Your task to perform on an android device: open app "Fetch Rewards" (install if not already installed) Image 0: 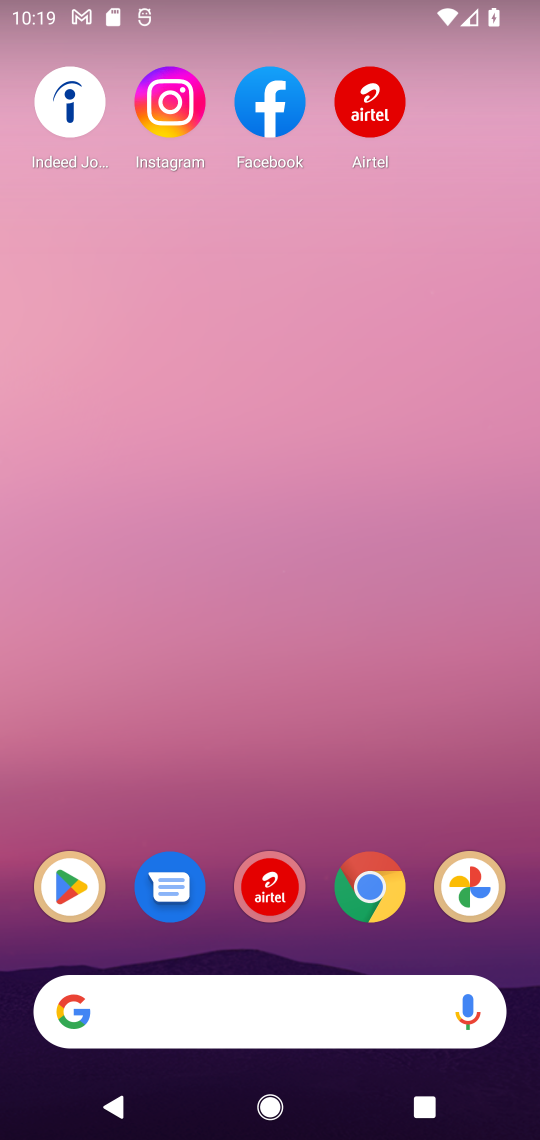
Step 0: drag from (363, 966) to (532, 446)
Your task to perform on an android device: open app "Fetch Rewards" (install if not already installed) Image 1: 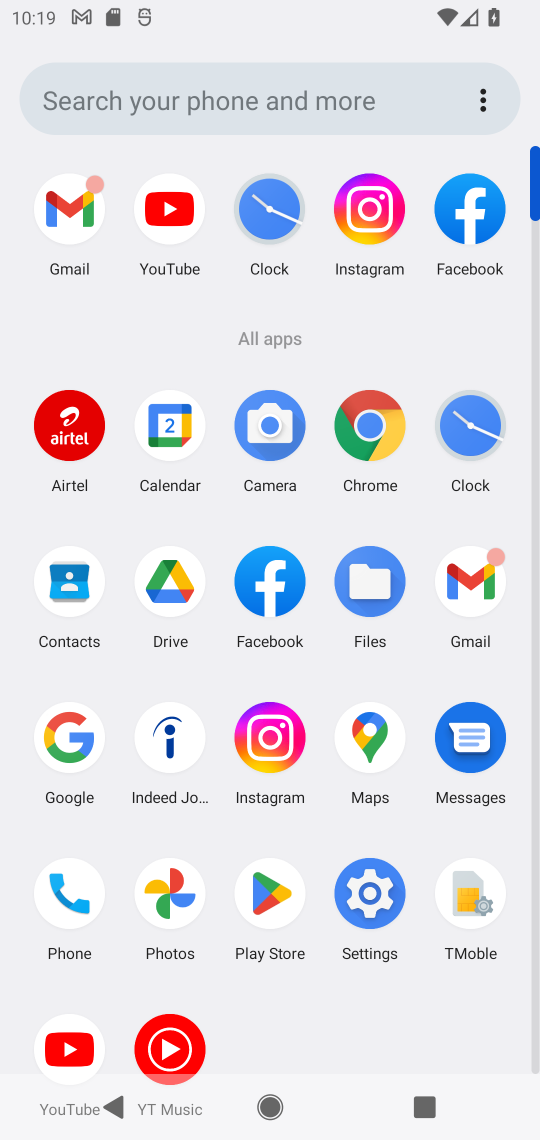
Step 1: click (243, 897)
Your task to perform on an android device: open app "Fetch Rewards" (install if not already installed) Image 2: 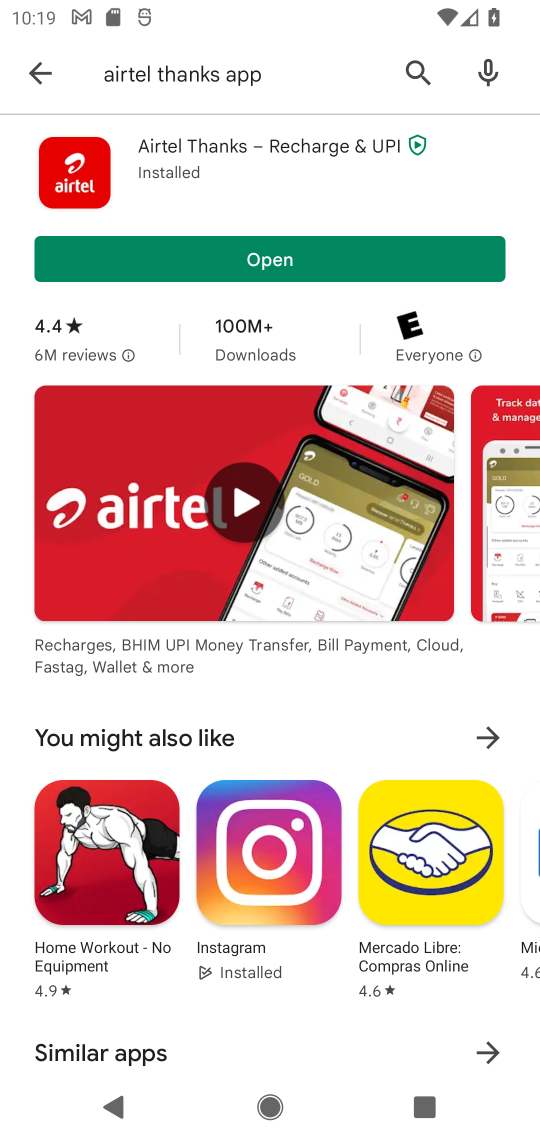
Step 2: click (19, 61)
Your task to perform on an android device: open app "Fetch Rewards" (install if not already installed) Image 3: 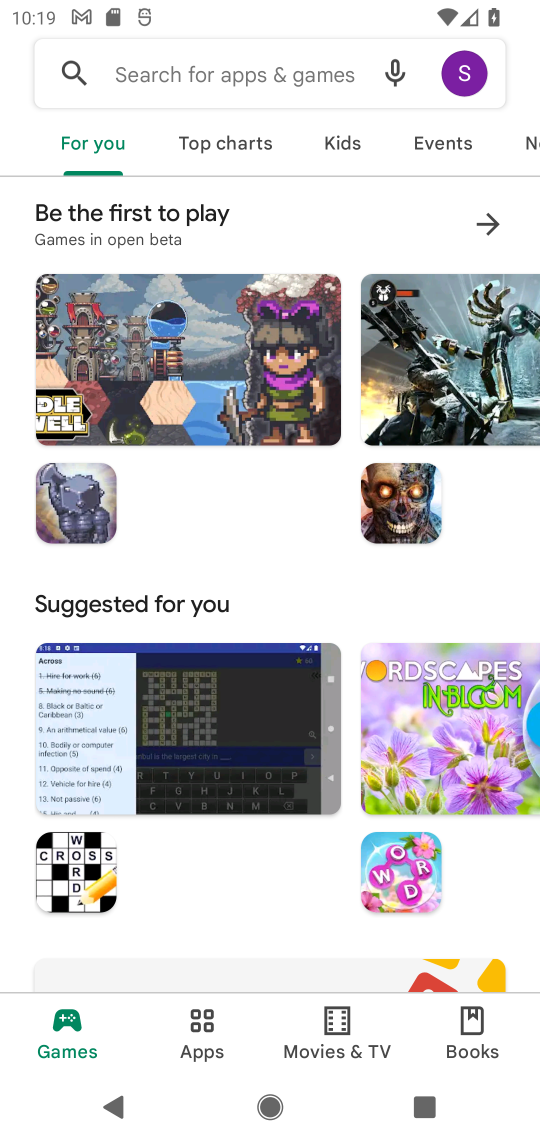
Step 3: click (99, 82)
Your task to perform on an android device: open app "Fetch Rewards" (install if not already installed) Image 4: 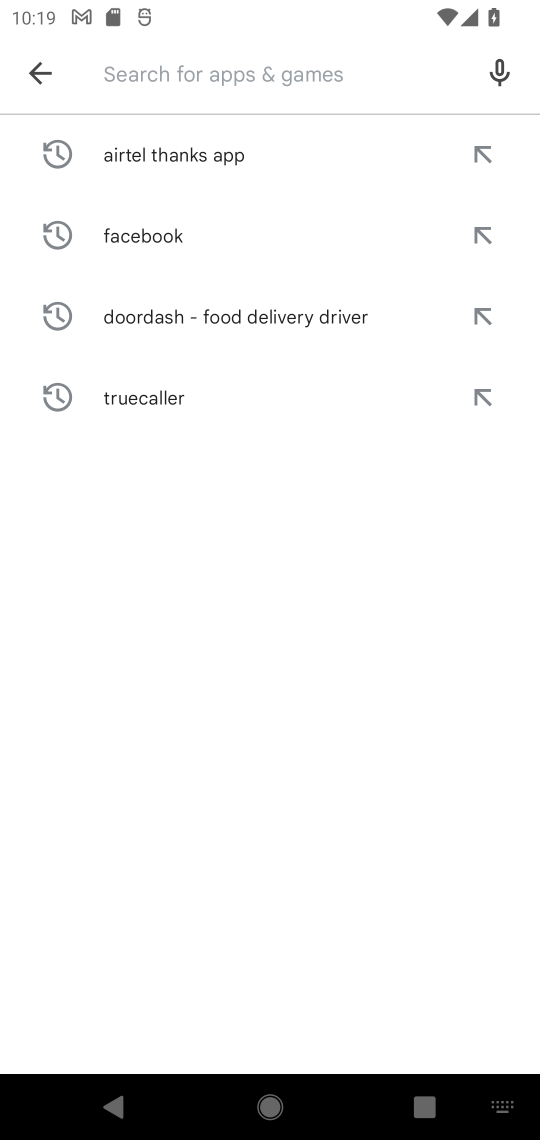
Step 4: type "Fetch Rewards"
Your task to perform on an android device: open app "Fetch Rewards" (install if not already installed) Image 5: 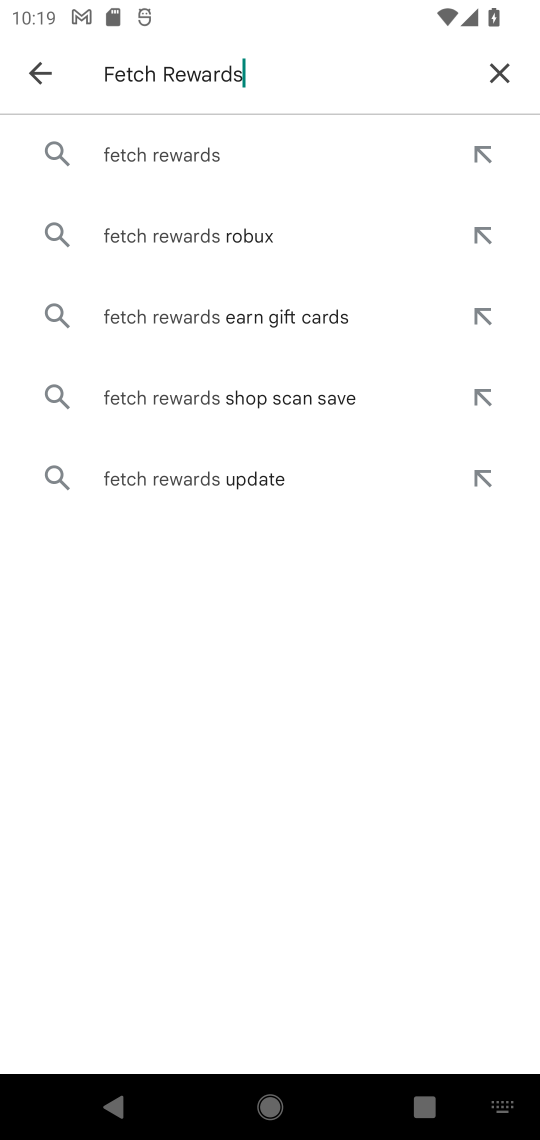
Step 5: click (183, 165)
Your task to perform on an android device: open app "Fetch Rewards" (install if not already installed) Image 6: 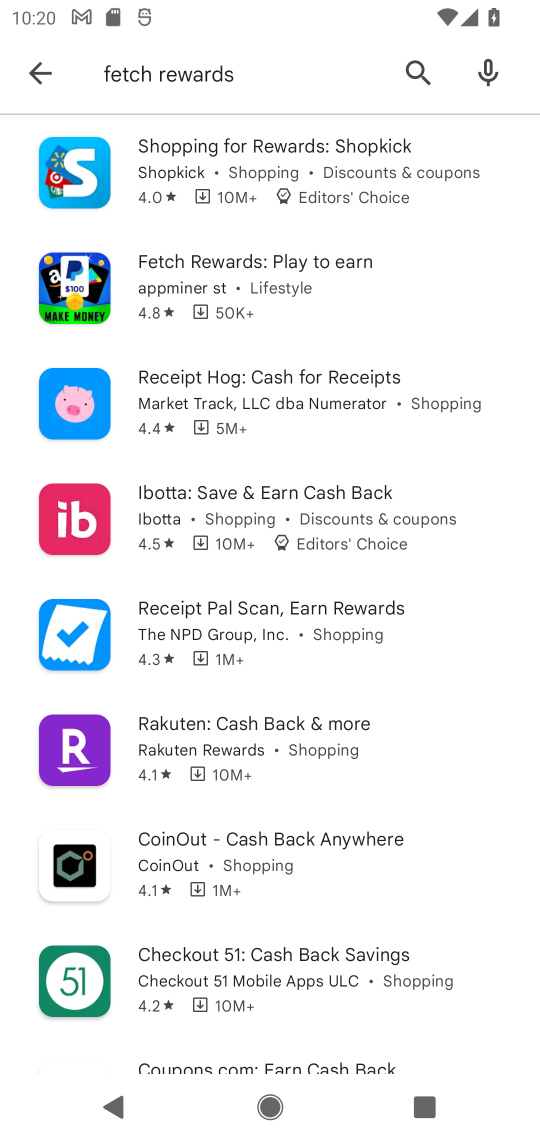
Step 6: click (233, 278)
Your task to perform on an android device: open app "Fetch Rewards" (install if not already installed) Image 7: 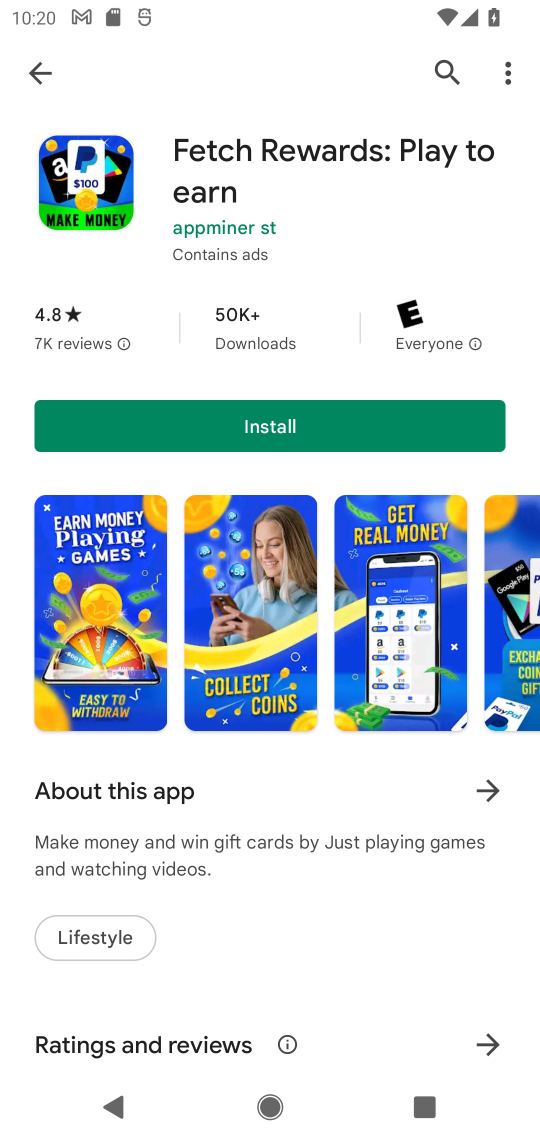
Step 7: click (188, 427)
Your task to perform on an android device: open app "Fetch Rewards" (install if not already installed) Image 8: 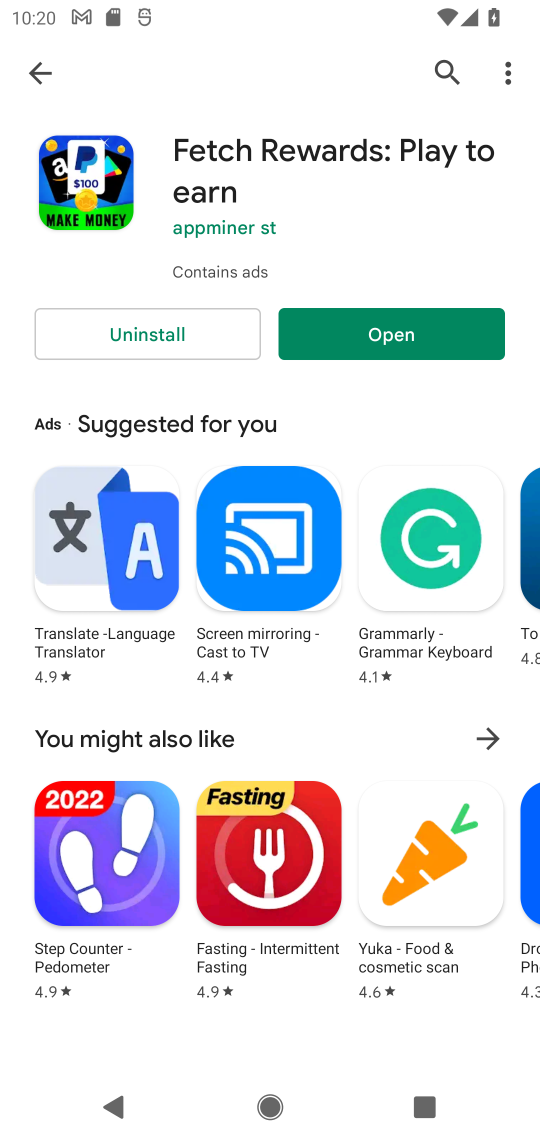
Step 8: click (417, 335)
Your task to perform on an android device: open app "Fetch Rewards" (install if not already installed) Image 9: 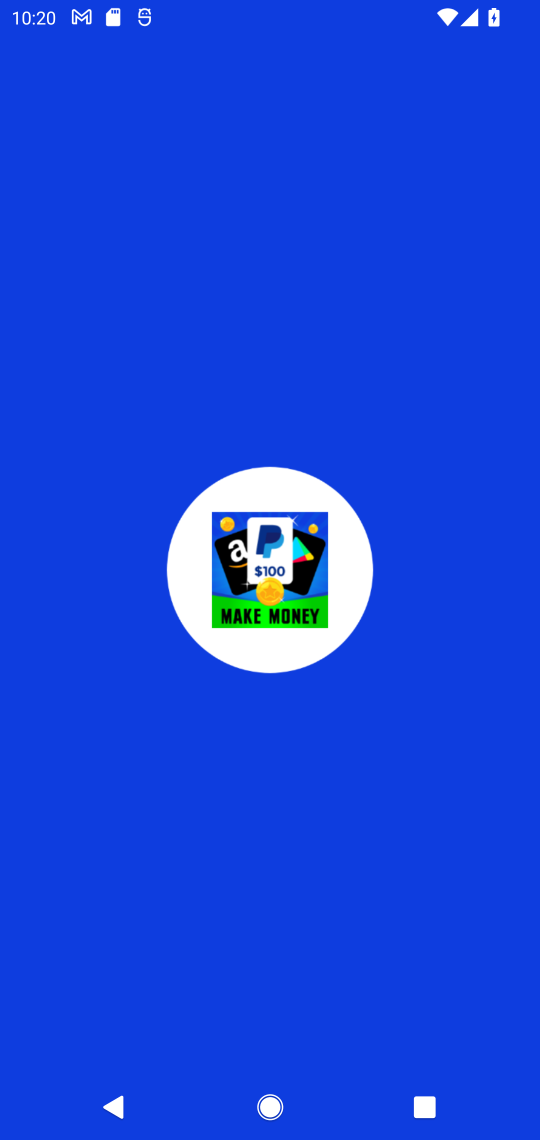
Step 9: task complete